Your task to perform on an android device: change notification settings in the gmail app Image 0: 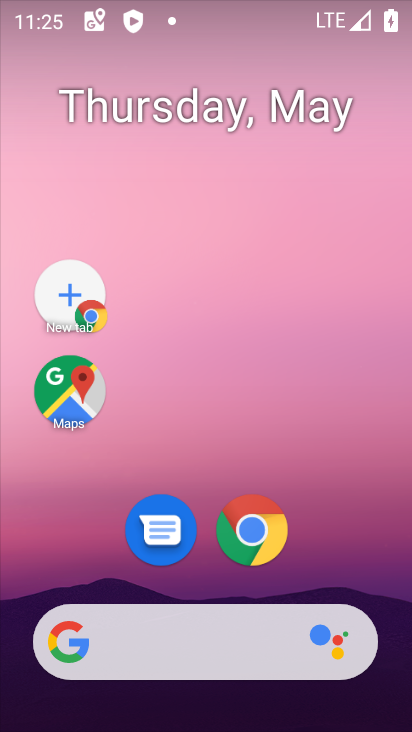
Step 0: drag from (296, 336) to (293, 209)
Your task to perform on an android device: change notification settings in the gmail app Image 1: 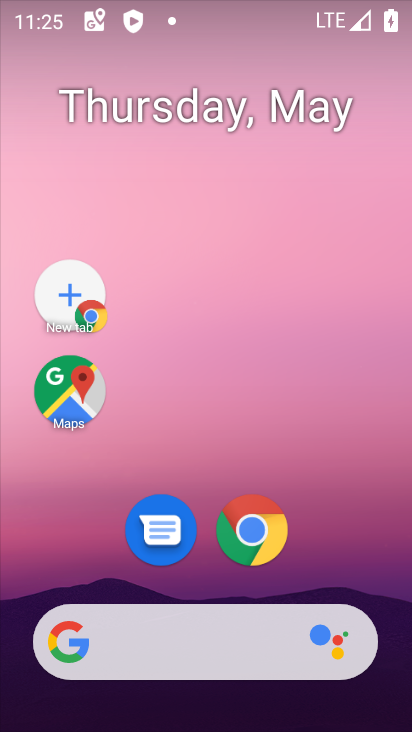
Step 1: drag from (267, 610) to (223, 216)
Your task to perform on an android device: change notification settings in the gmail app Image 2: 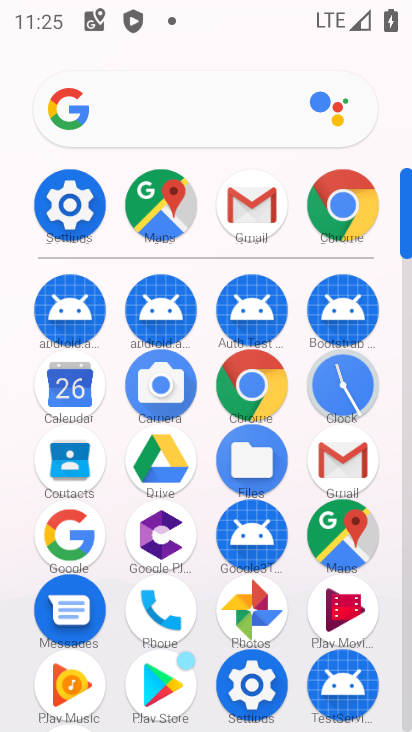
Step 2: click (343, 466)
Your task to perform on an android device: change notification settings in the gmail app Image 3: 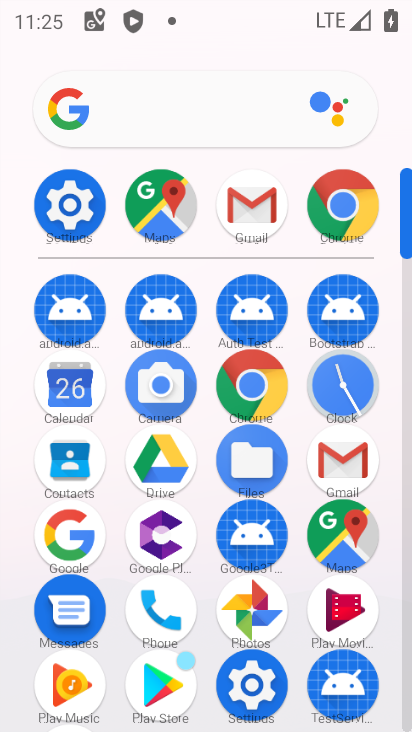
Step 3: click (346, 464)
Your task to perform on an android device: change notification settings in the gmail app Image 4: 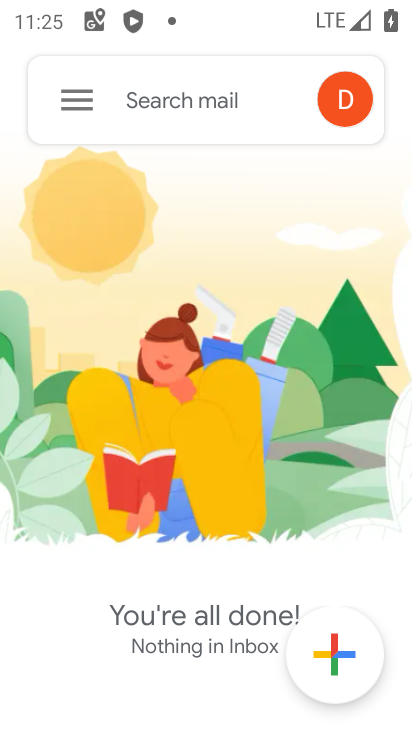
Step 4: click (347, 453)
Your task to perform on an android device: change notification settings in the gmail app Image 5: 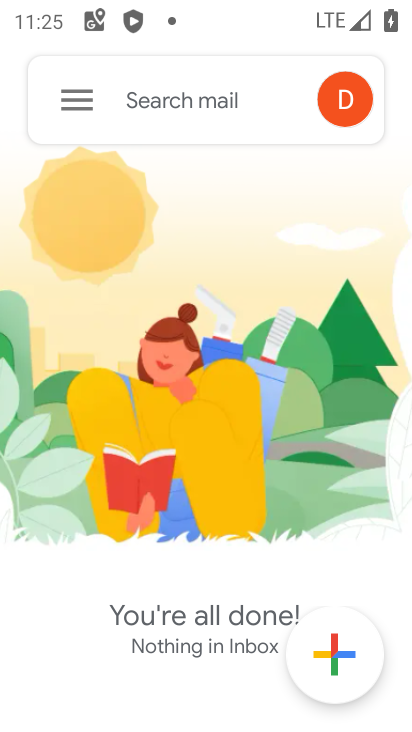
Step 5: click (87, 83)
Your task to perform on an android device: change notification settings in the gmail app Image 6: 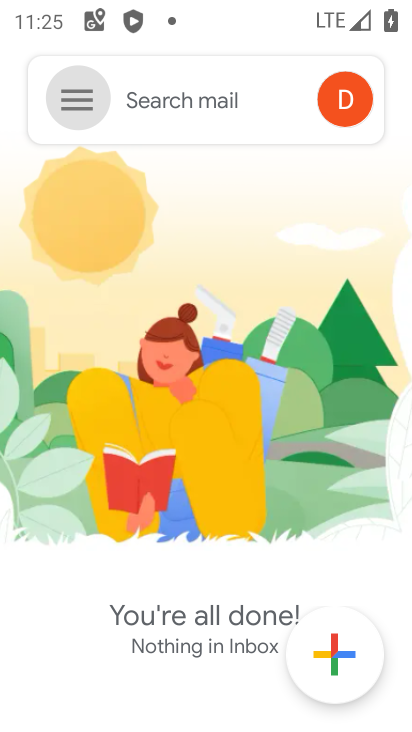
Step 6: click (92, 85)
Your task to perform on an android device: change notification settings in the gmail app Image 7: 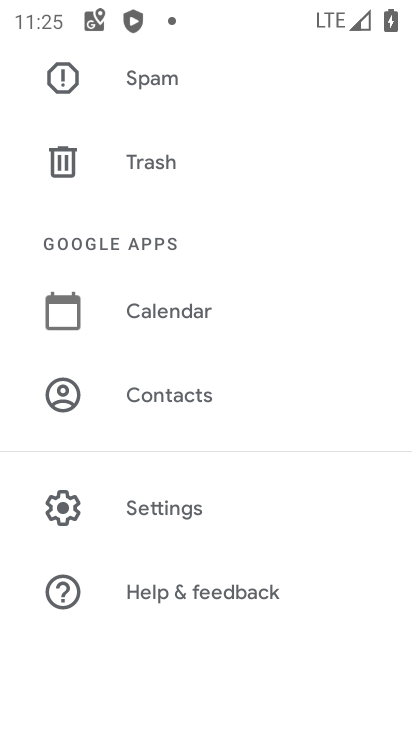
Step 7: click (162, 504)
Your task to perform on an android device: change notification settings in the gmail app Image 8: 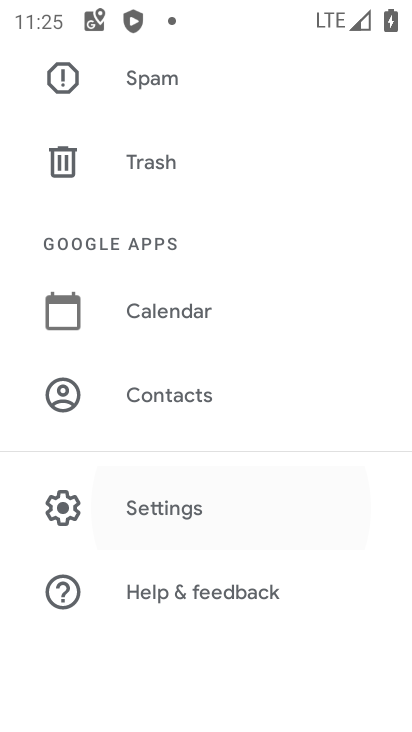
Step 8: click (162, 504)
Your task to perform on an android device: change notification settings in the gmail app Image 9: 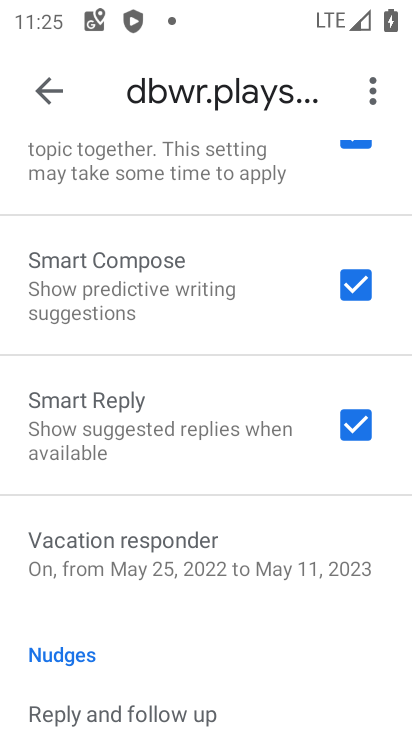
Step 9: drag from (111, 195) to (151, 408)
Your task to perform on an android device: change notification settings in the gmail app Image 10: 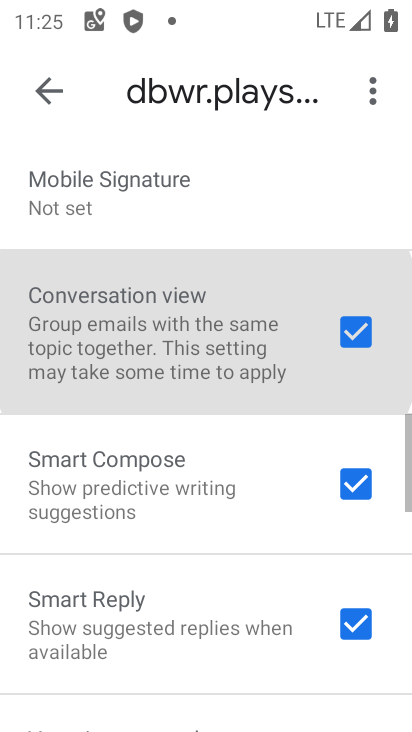
Step 10: drag from (129, 344) to (152, 534)
Your task to perform on an android device: change notification settings in the gmail app Image 11: 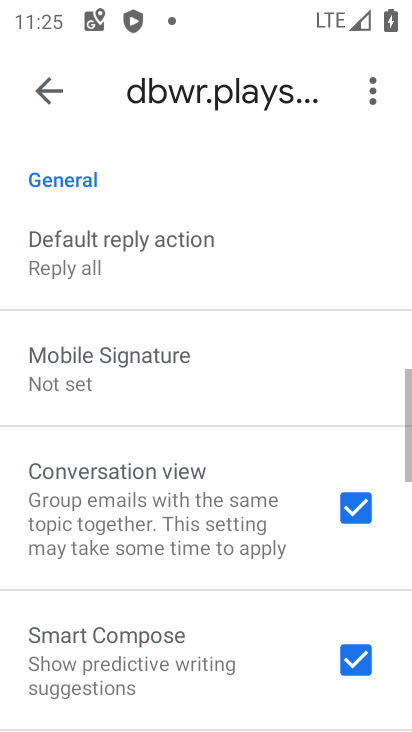
Step 11: drag from (122, 310) to (158, 526)
Your task to perform on an android device: change notification settings in the gmail app Image 12: 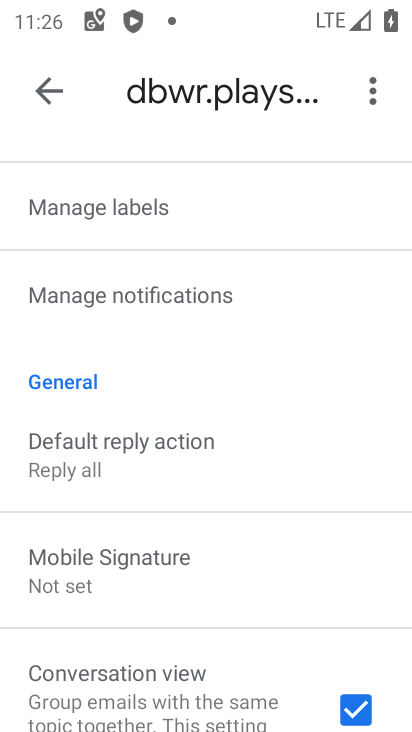
Step 12: drag from (92, 196) to (125, 456)
Your task to perform on an android device: change notification settings in the gmail app Image 13: 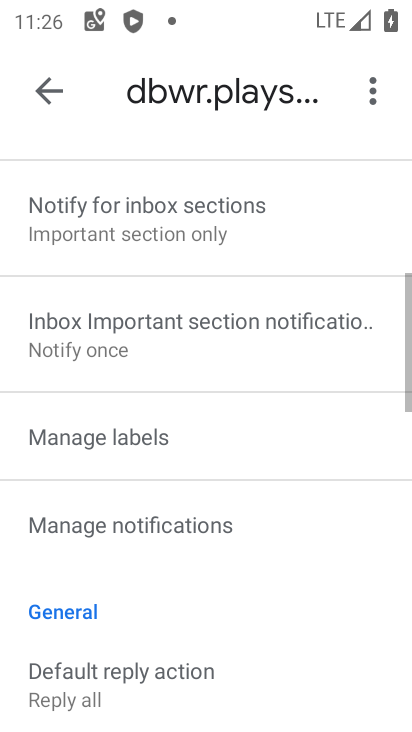
Step 13: drag from (87, 198) to (130, 515)
Your task to perform on an android device: change notification settings in the gmail app Image 14: 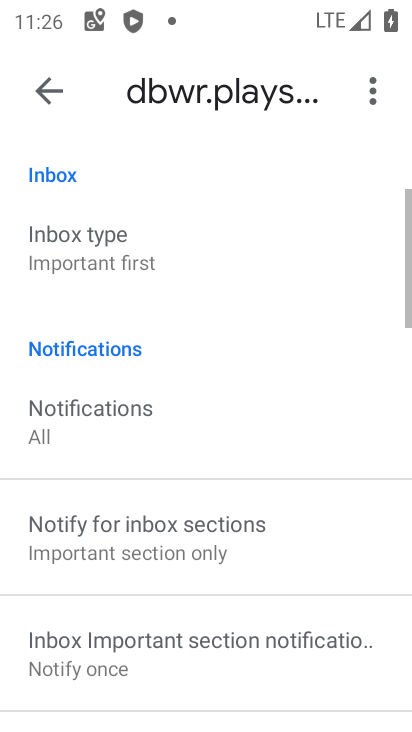
Step 14: drag from (119, 265) to (181, 531)
Your task to perform on an android device: change notification settings in the gmail app Image 15: 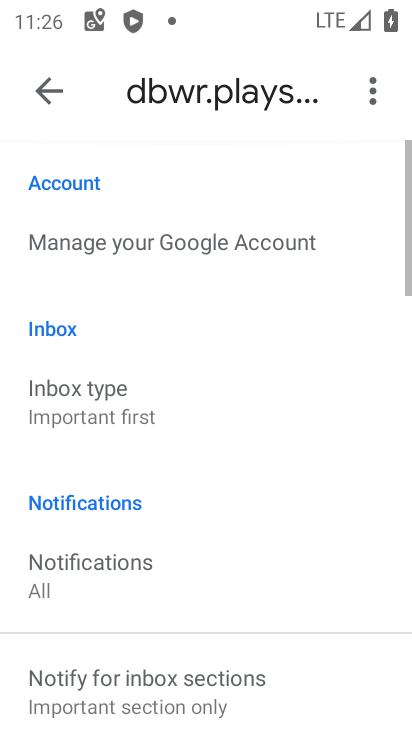
Step 15: drag from (150, 265) to (193, 619)
Your task to perform on an android device: change notification settings in the gmail app Image 16: 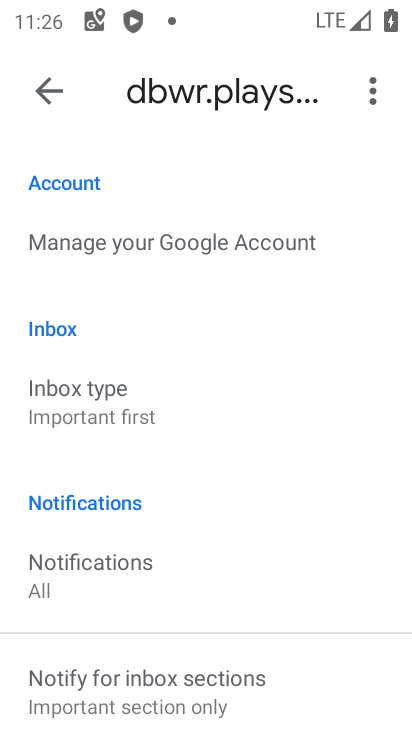
Step 16: click (74, 550)
Your task to perform on an android device: change notification settings in the gmail app Image 17: 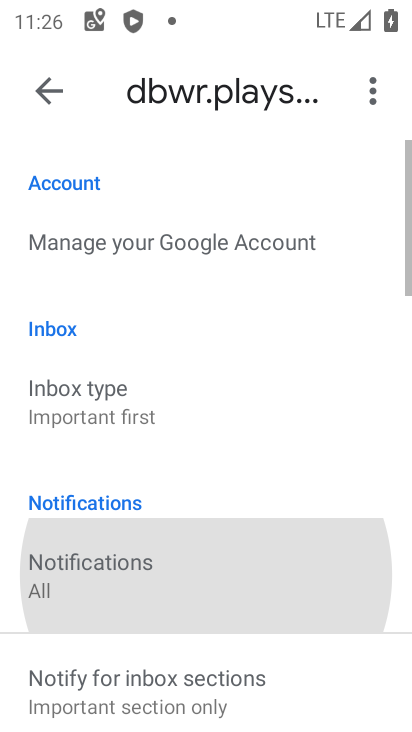
Step 17: click (84, 553)
Your task to perform on an android device: change notification settings in the gmail app Image 18: 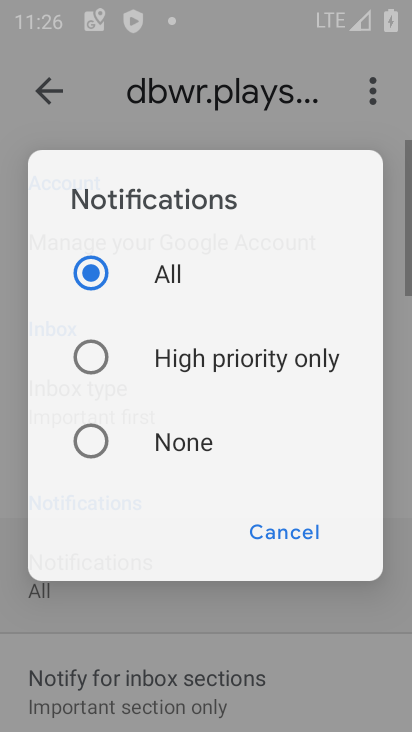
Step 18: click (84, 553)
Your task to perform on an android device: change notification settings in the gmail app Image 19: 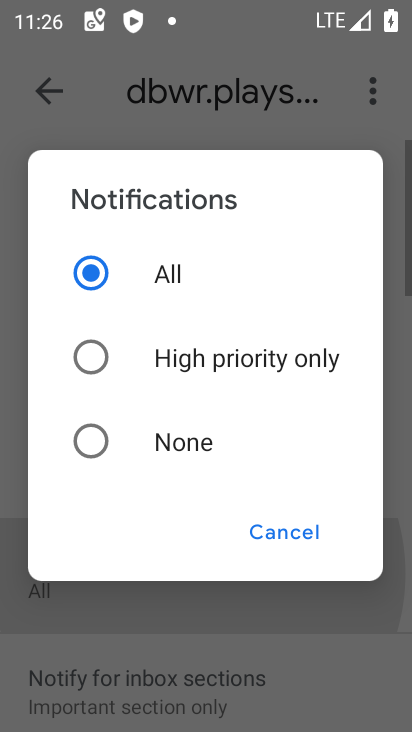
Step 19: click (85, 553)
Your task to perform on an android device: change notification settings in the gmail app Image 20: 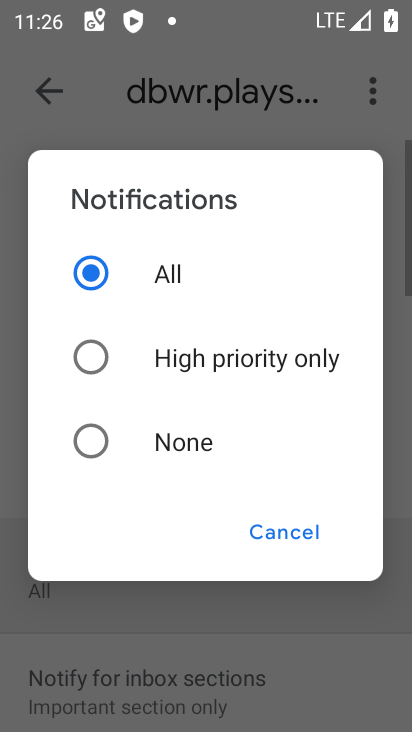
Step 20: click (86, 553)
Your task to perform on an android device: change notification settings in the gmail app Image 21: 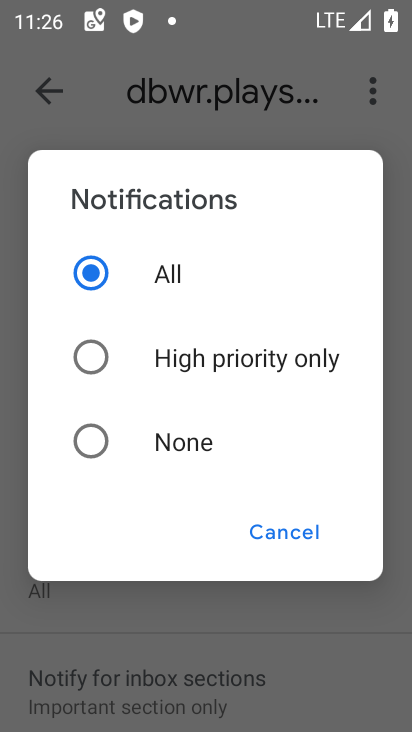
Step 21: click (89, 351)
Your task to perform on an android device: change notification settings in the gmail app Image 22: 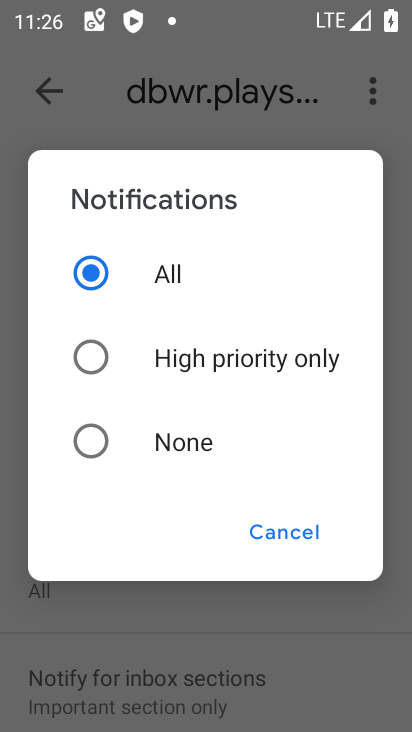
Step 22: click (90, 354)
Your task to perform on an android device: change notification settings in the gmail app Image 23: 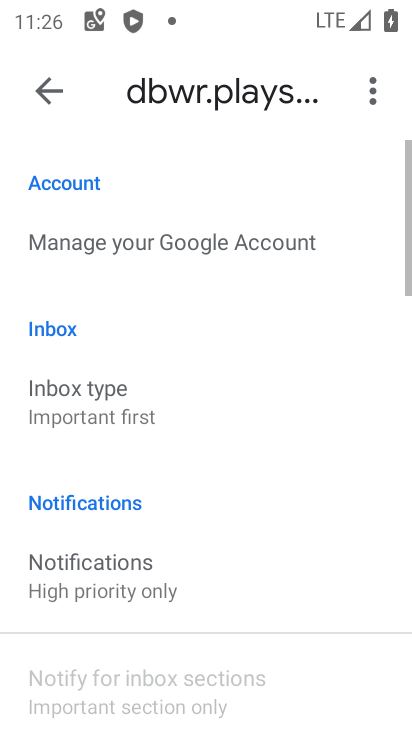
Step 23: click (82, 369)
Your task to perform on an android device: change notification settings in the gmail app Image 24: 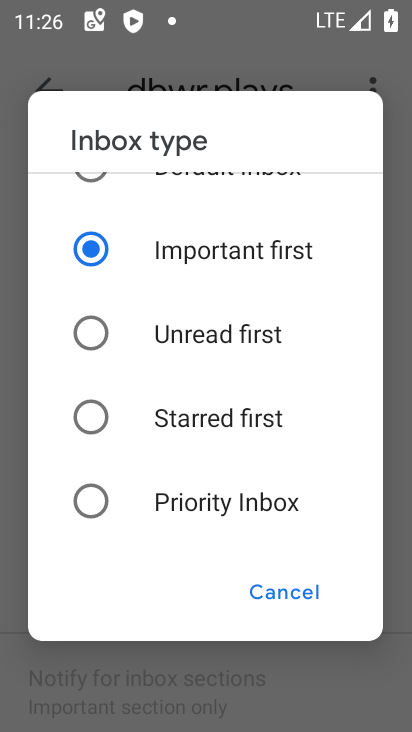
Step 24: task complete